Your task to perform on an android device: See recent photos Image 0: 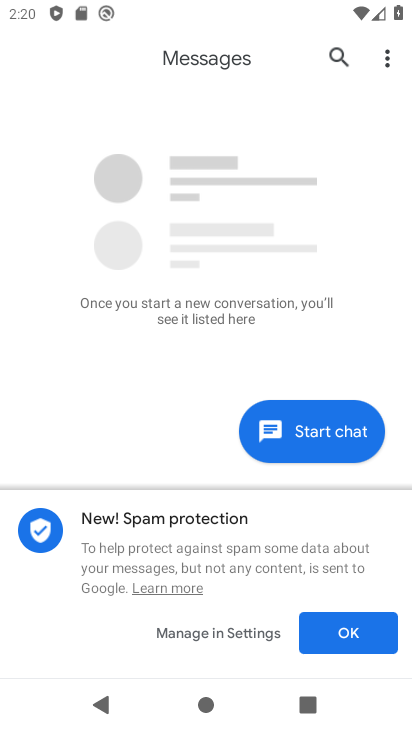
Step 0: press home button
Your task to perform on an android device: See recent photos Image 1: 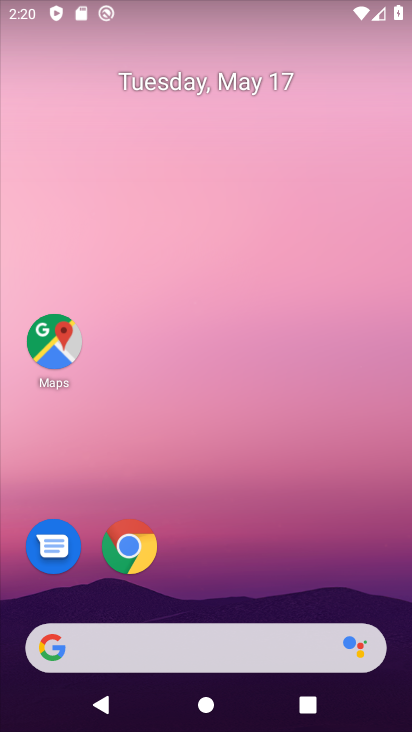
Step 1: drag from (192, 554) to (192, 29)
Your task to perform on an android device: See recent photos Image 2: 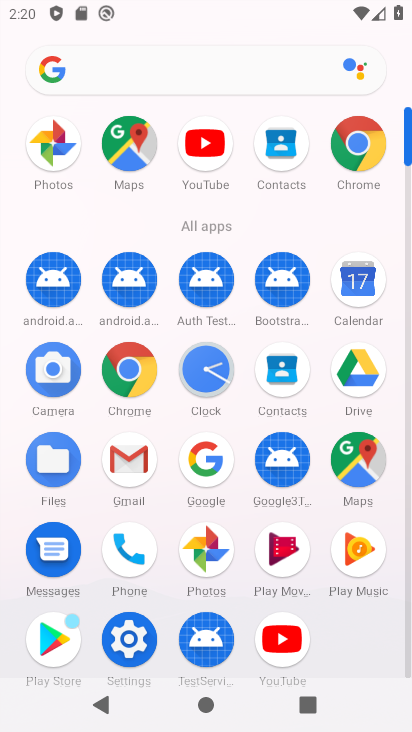
Step 2: click (202, 540)
Your task to perform on an android device: See recent photos Image 3: 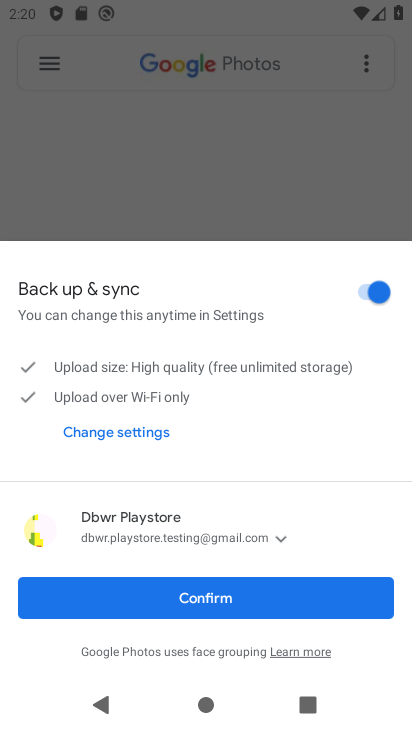
Step 3: click (190, 593)
Your task to perform on an android device: See recent photos Image 4: 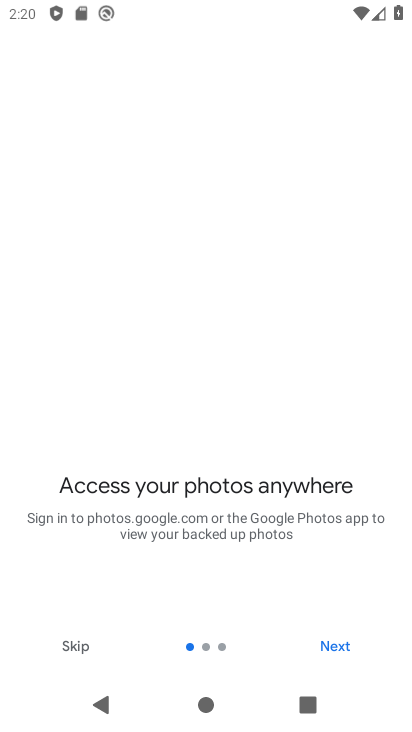
Step 4: click (76, 647)
Your task to perform on an android device: See recent photos Image 5: 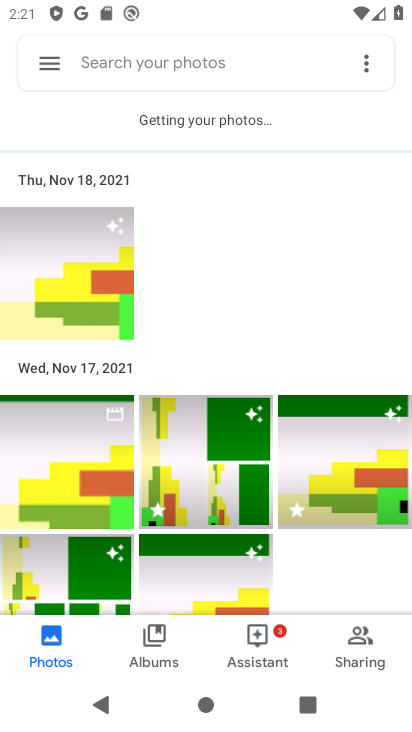
Step 5: click (56, 253)
Your task to perform on an android device: See recent photos Image 6: 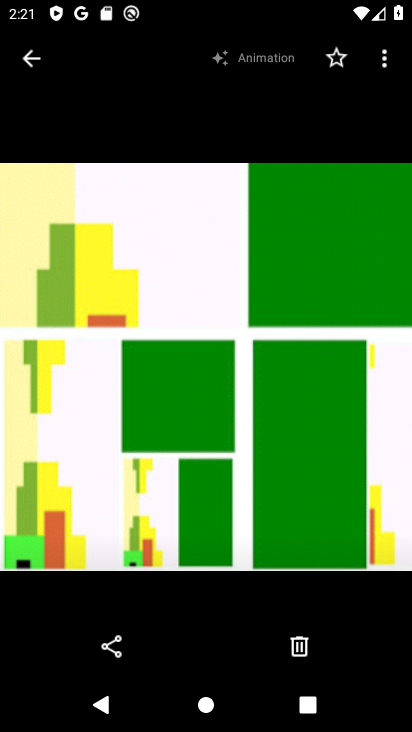
Step 6: task complete